Your task to perform on an android device: Add "razer blade" to the cart on walmart.com Image 0: 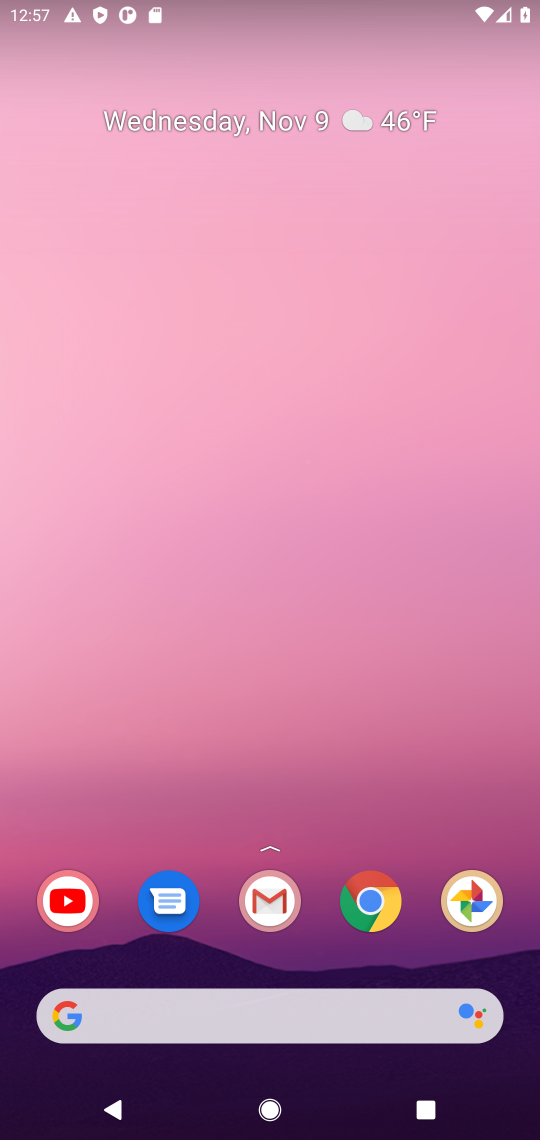
Step 0: click (357, 901)
Your task to perform on an android device: Add "razer blade" to the cart on walmart.com Image 1: 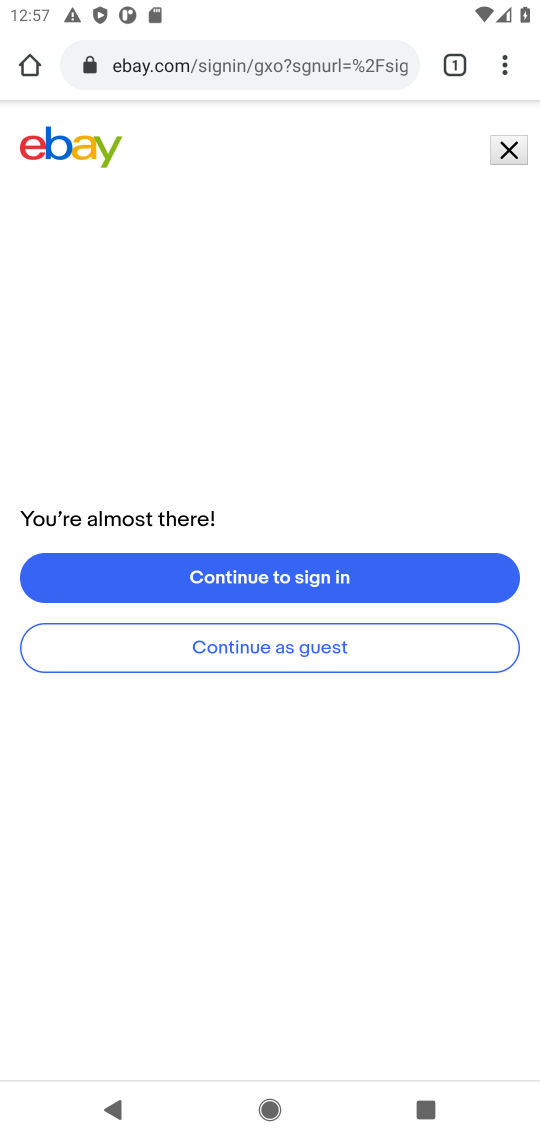
Step 1: click (325, 64)
Your task to perform on an android device: Add "razer blade" to the cart on walmart.com Image 2: 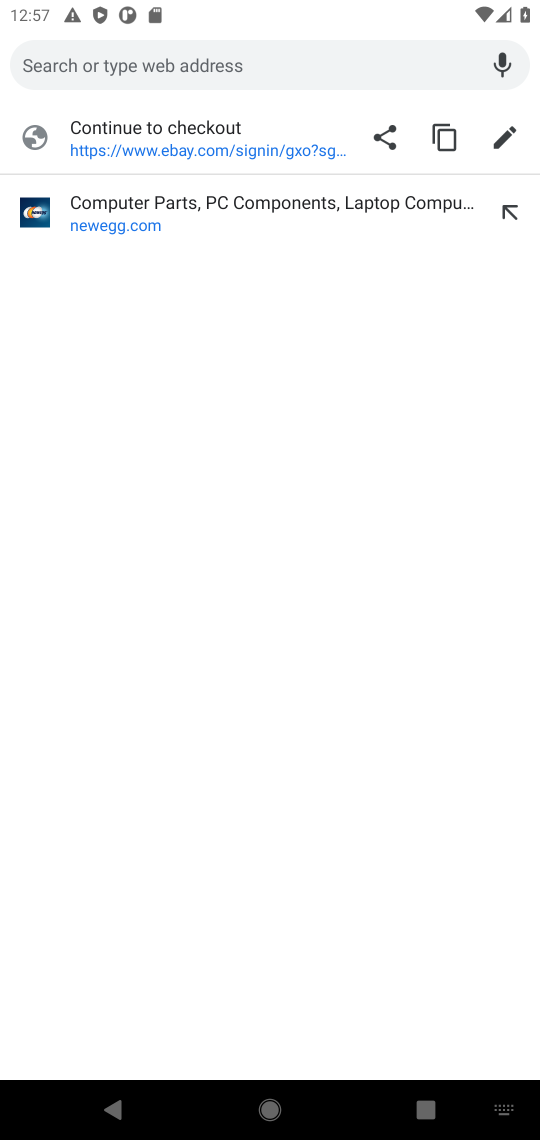
Step 2: type "walmart.com"
Your task to perform on an android device: Add "razer blade" to the cart on walmart.com Image 3: 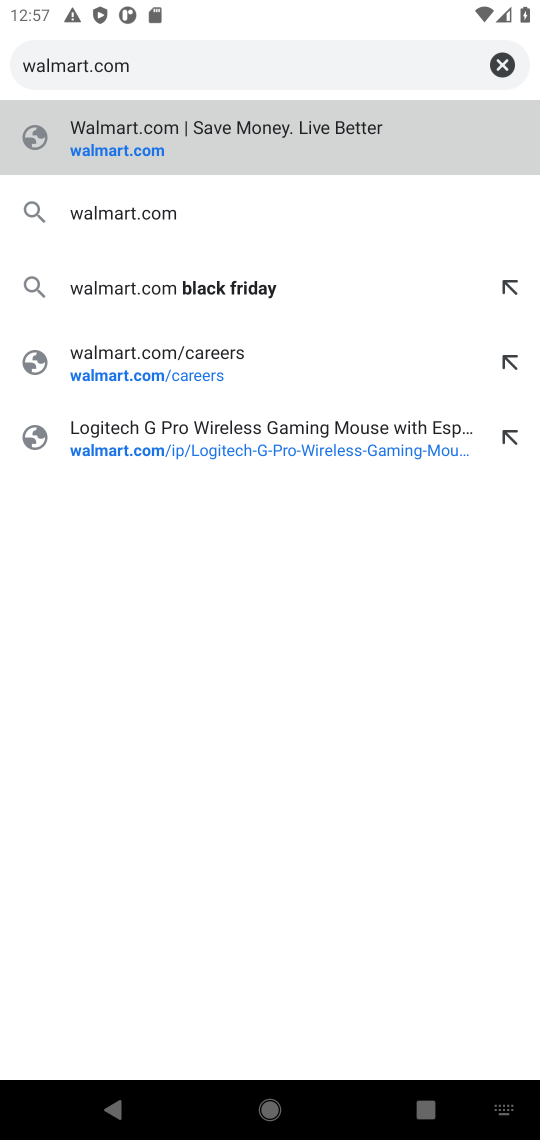
Step 3: press enter
Your task to perform on an android device: Add "razer blade" to the cart on walmart.com Image 4: 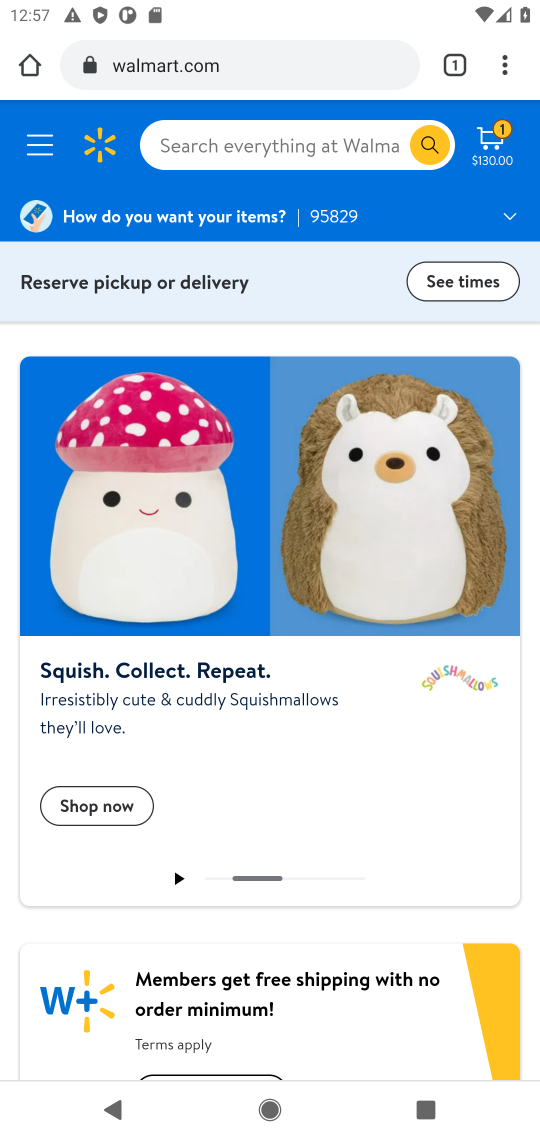
Step 4: click (239, 123)
Your task to perform on an android device: Add "razer blade" to the cart on walmart.com Image 5: 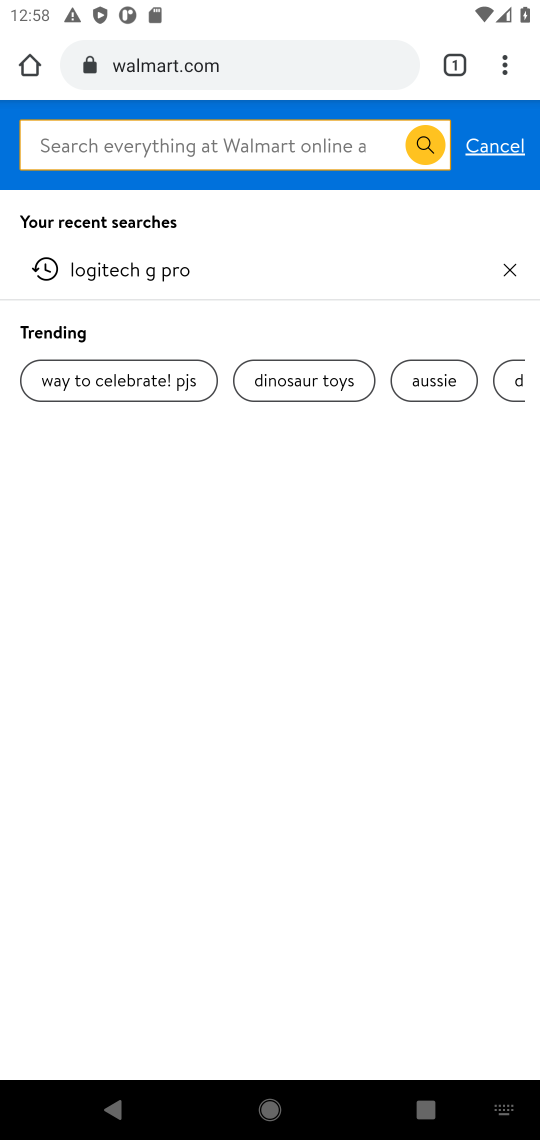
Step 5: type "razer blade"
Your task to perform on an android device: Add "razer blade" to the cart on walmart.com Image 6: 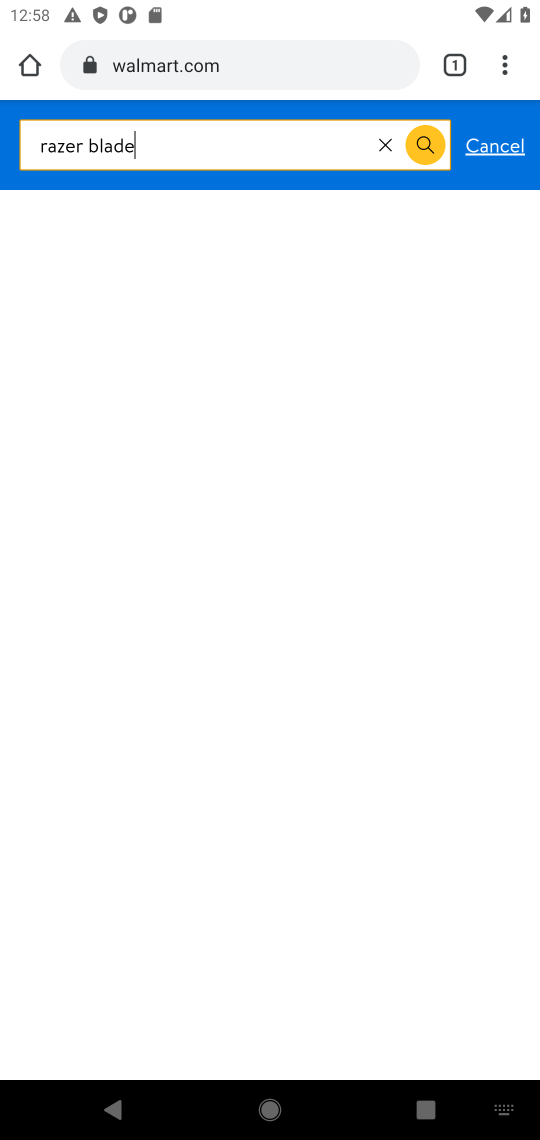
Step 6: press enter
Your task to perform on an android device: Add "razer blade" to the cart on walmart.com Image 7: 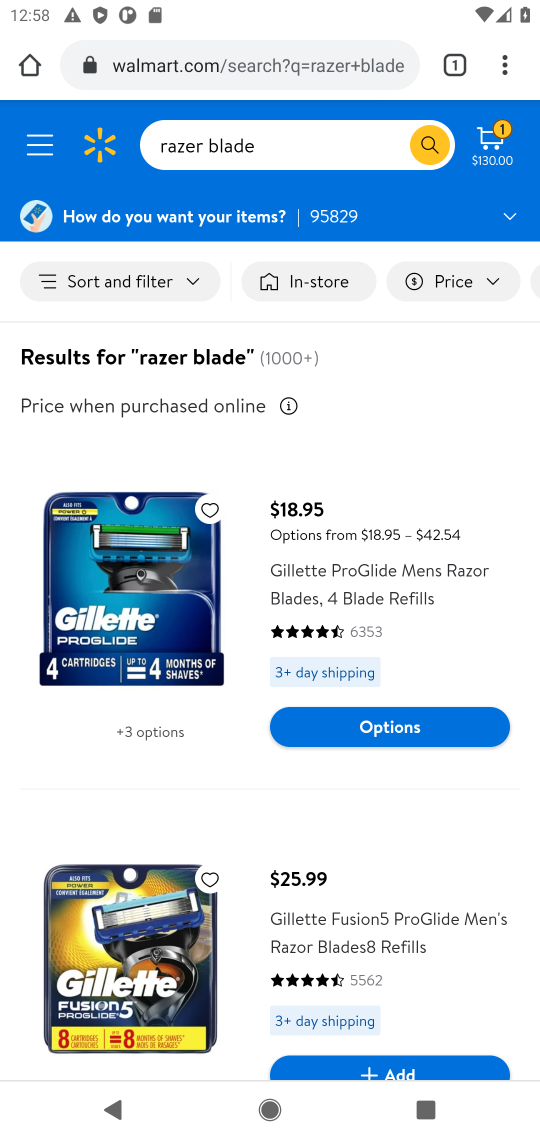
Step 7: drag from (482, 851) to (530, 790)
Your task to perform on an android device: Add "razer blade" to the cart on walmart.com Image 8: 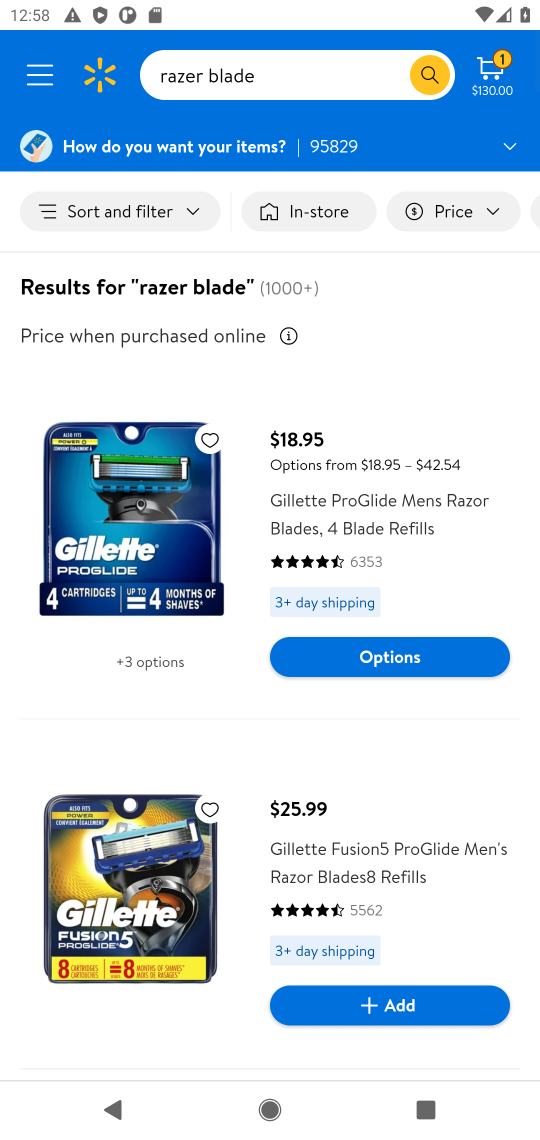
Step 8: drag from (467, 989) to (537, 453)
Your task to perform on an android device: Add "razer blade" to the cart on walmart.com Image 9: 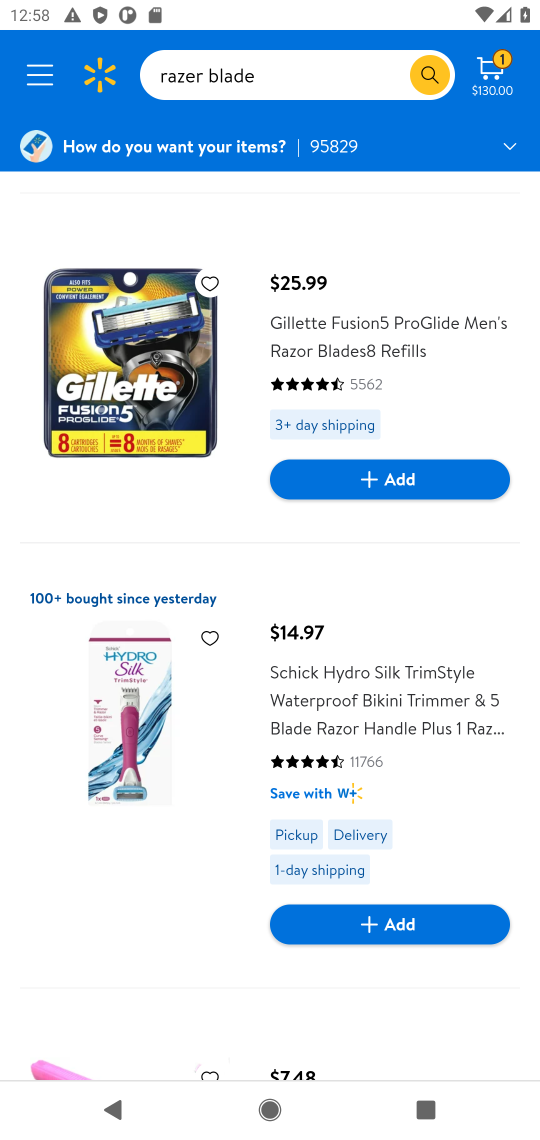
Step 9: drag from (484, 769) to (539, 706)
Your task to perform on an android device: Add "razer blade" to the cart on walmart.com Image 10: 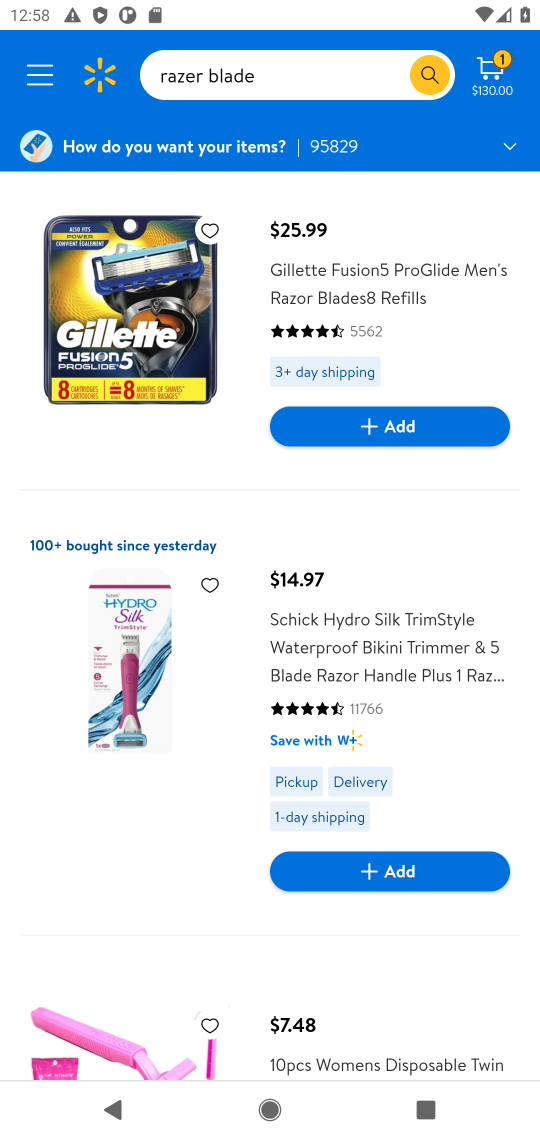
Step 10: drag from (421, 310) to (393, 741)
Your task to perform on an android device: Add "razer blade" to the cart on walmart.com Image 11: 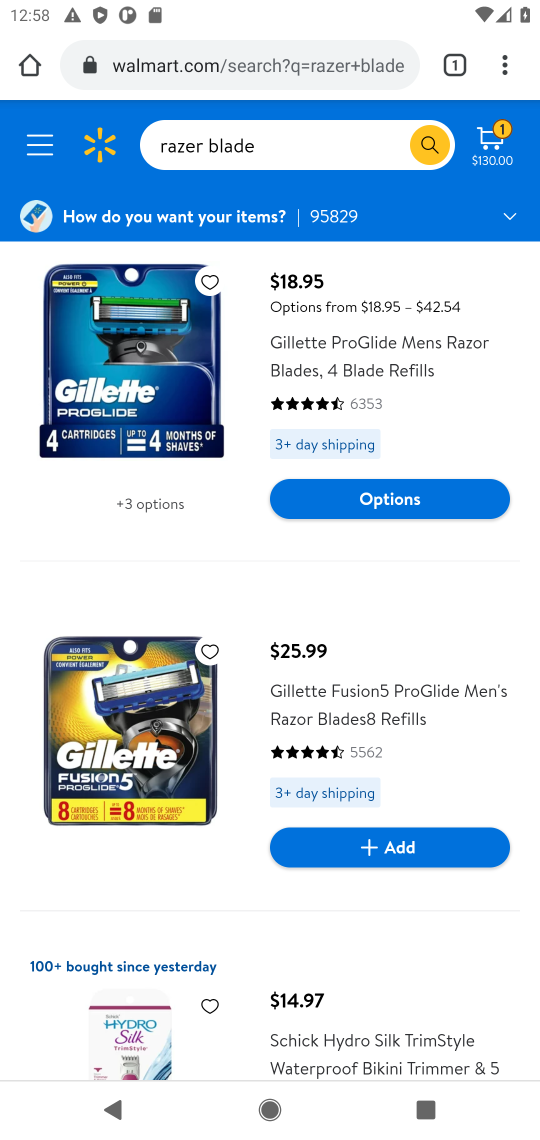
Step 11: drag from (457, 878) to (492, 401)
Your task to perform on an android device: Add "razer blade" to the cart on walmart.com Image 12: 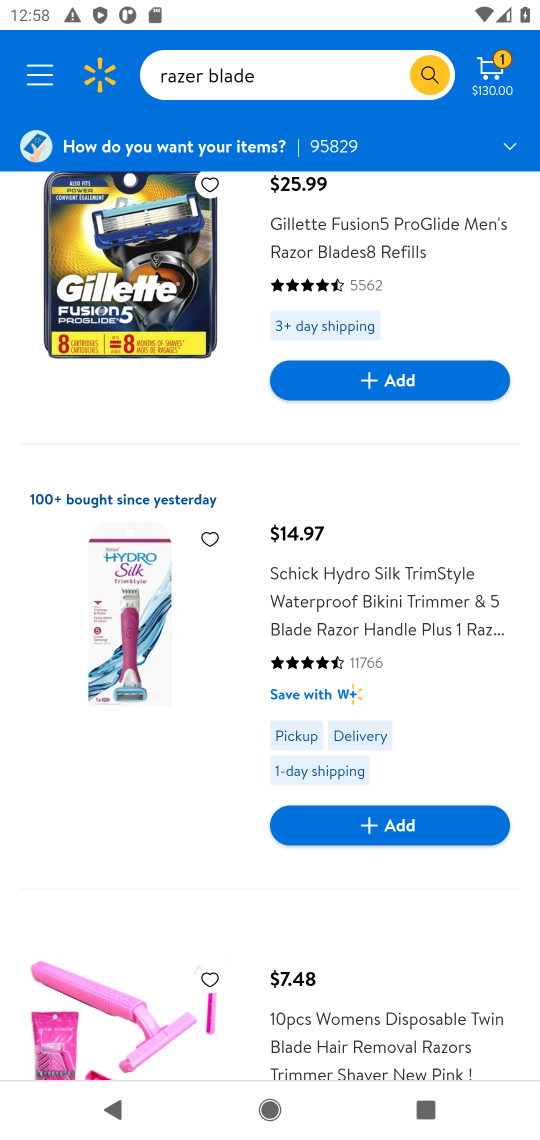
Step 12: drag from (449, 927) to (446, 346)
Your task to perform on an android device: Add "razer blade" to the cart on walmart.com Image 13: 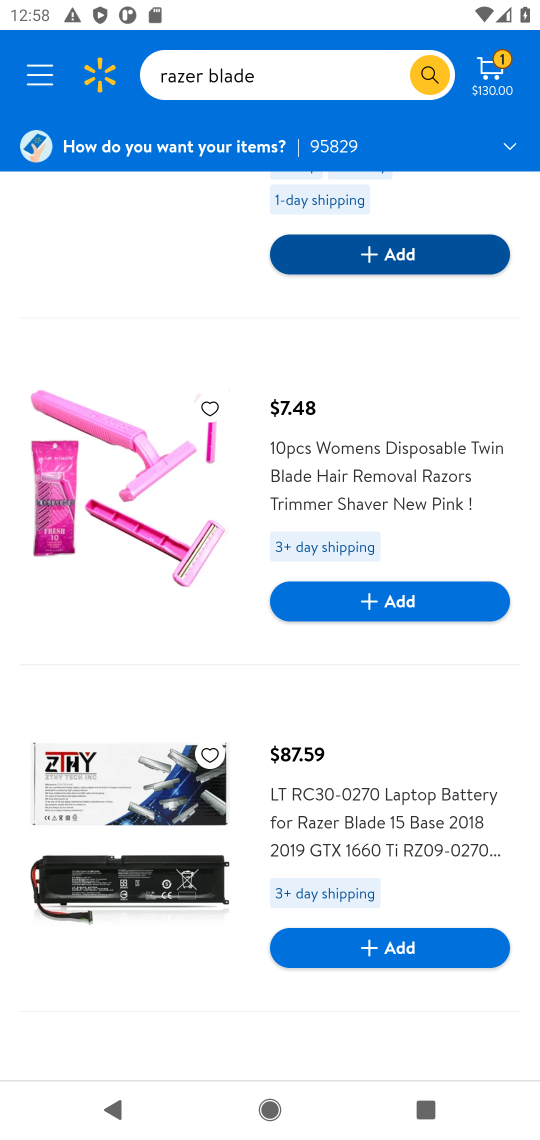
Step 13: click (121, 795)
Your task to perform on an android device: Add "razer blade" to the cart on walmart.com Image 14: 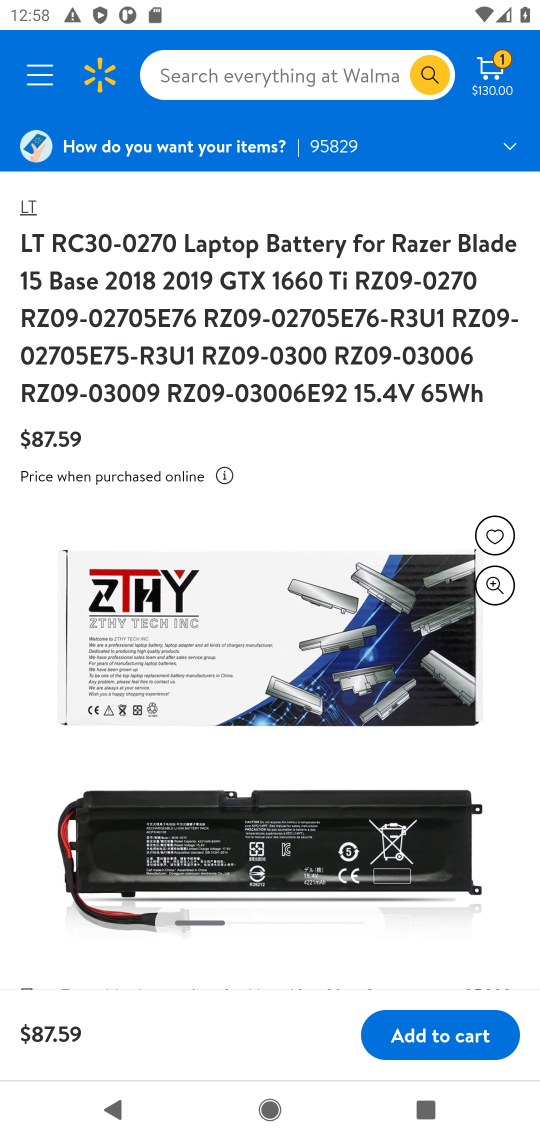
Step 14: click (463, 1045)
Your task to perform on an android device: Add "razer blade" to the cart on walmart.com Image 15: 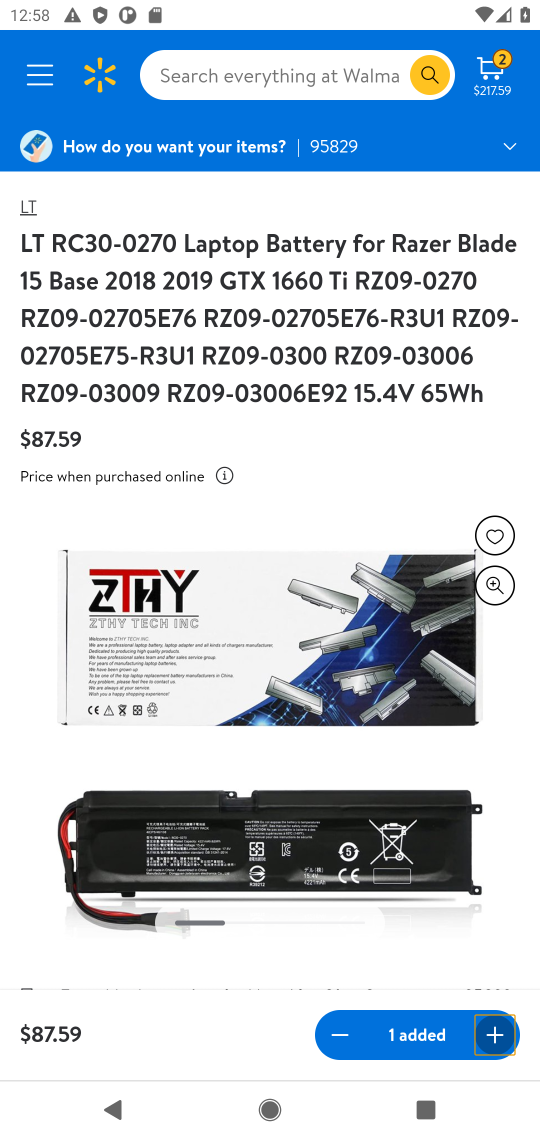
Step 15: task complete